Your task to perform on an android device: see creations saved in the google photos Image 0: 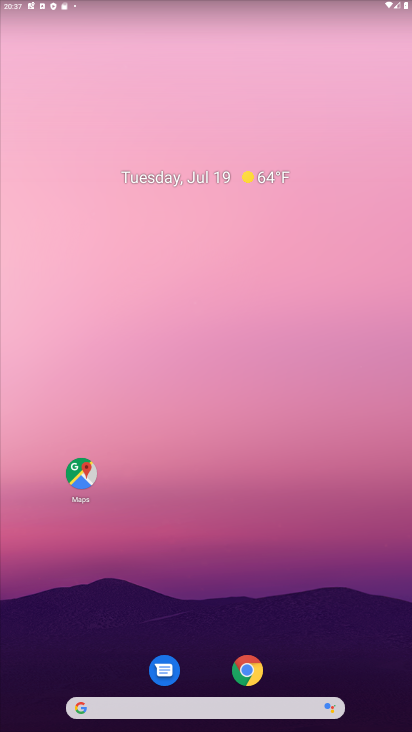
Step 0: drag from (126, 721) to (255, 38)
Your task to perform on an android device: see creations saved in the google photos Image 1: 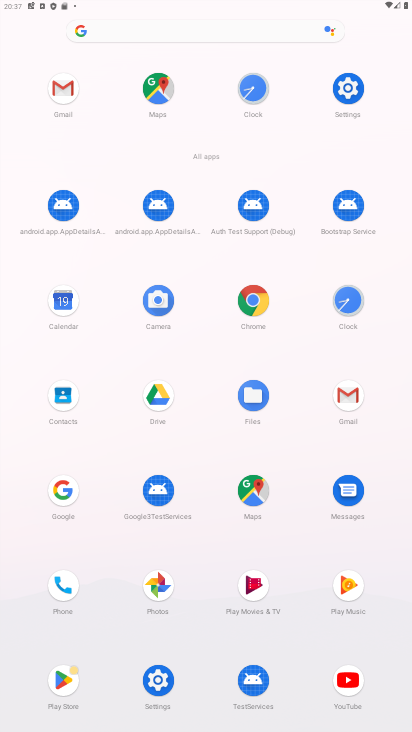
Step 1: click (159, 587)
Your task to perform on an android device: see creations saved in the google photos Image 2: 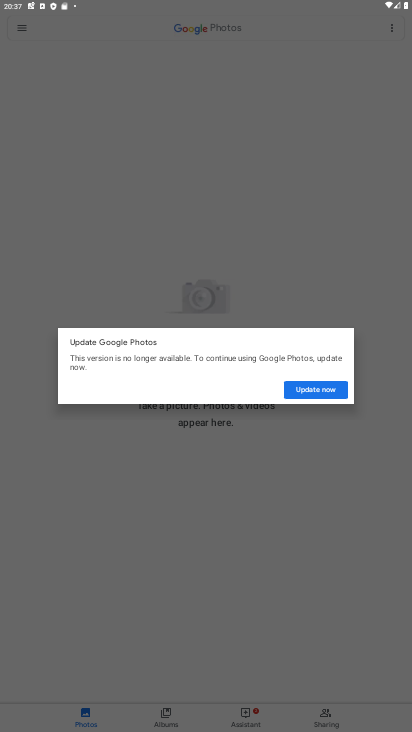
Step 2: click (330, 389)
Your task to perform on an android device: see creations saved in the google photos Image 3: 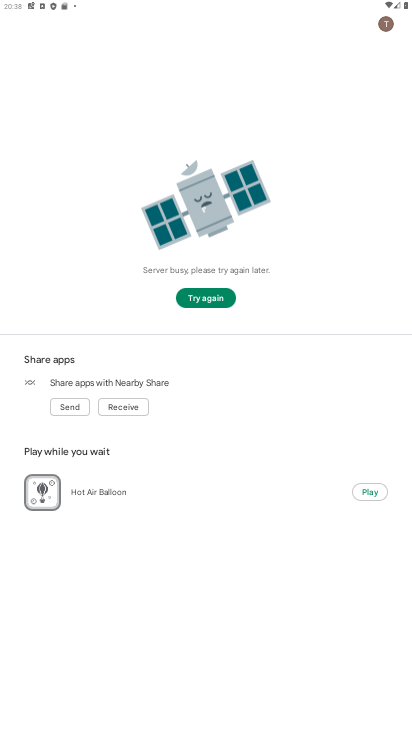
Step 3: click (187, 294)
Your task to perform on an android device: see creations saved in the google photos Image 4: 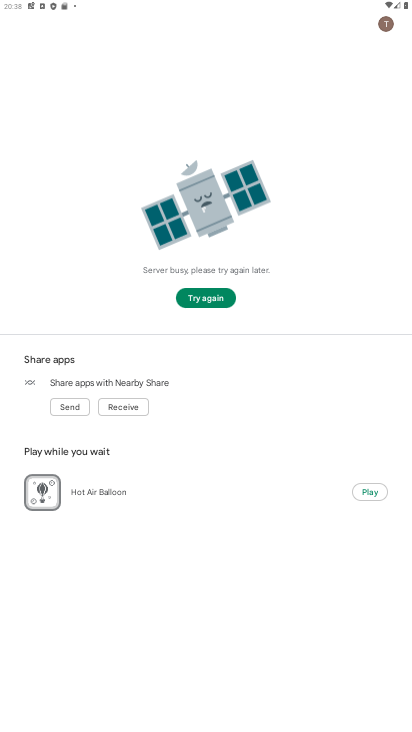
Step 4: task complete